Your task to perform on an android device: When is my next appointment? Image 0: 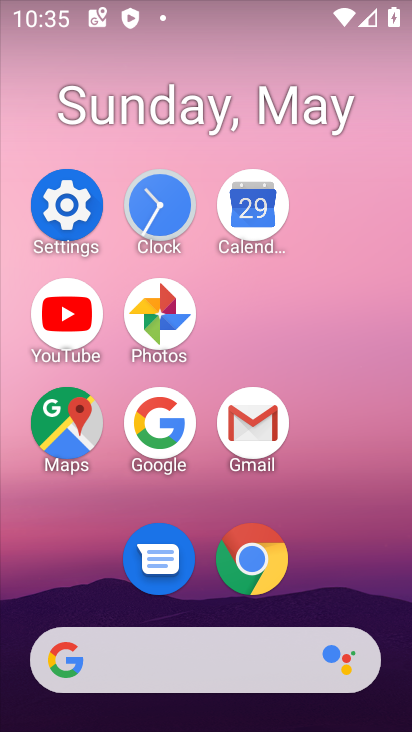
Step 0: click (258, 200)
Your task to perform on an android device: When is my next appointment? Image 1: 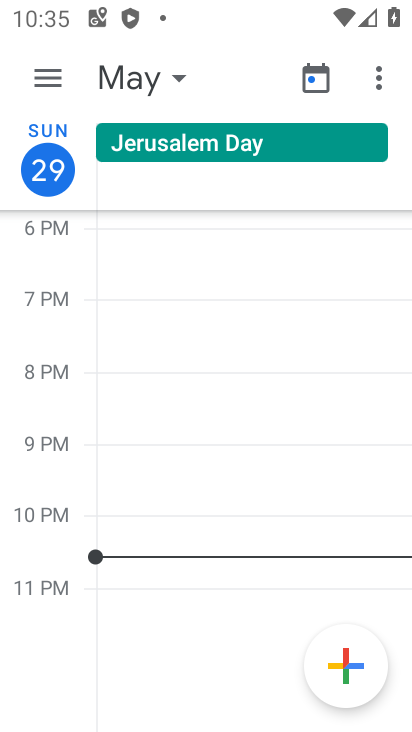
Step 1: drag from (391, 173) to (37, 41)
Your task to perform on an android device: When is my next appointment? Image 2: 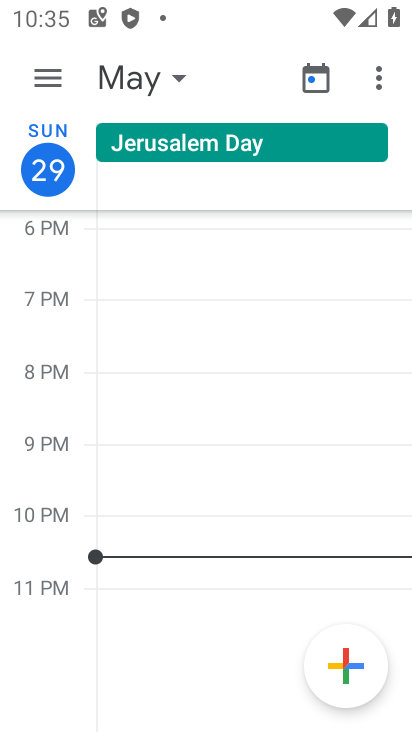
Step 2: drag from (147, 483) to (94, 233)
Your task to perform on an android device: When is my next appointment? Image 3: 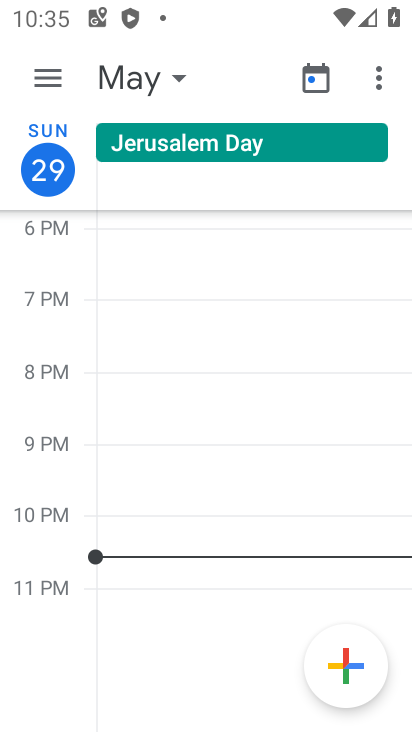
Step 3: click (44, 80)
Your task to perform on an android device: When is my next appointment? Image 4: 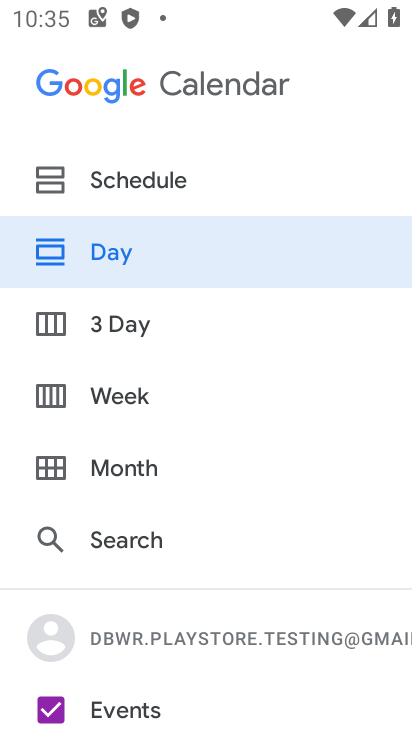
Step 4: click (103, 336)
Your task to perform on an android device: When is my next appointment? Image 5: 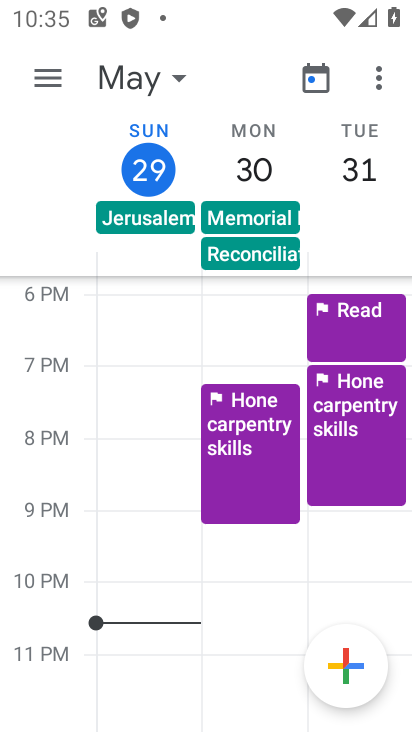
Step 5: drag from (390, 161) to (15, 117)
Your task to perform on an android device: When is my next appointment? Image 6: 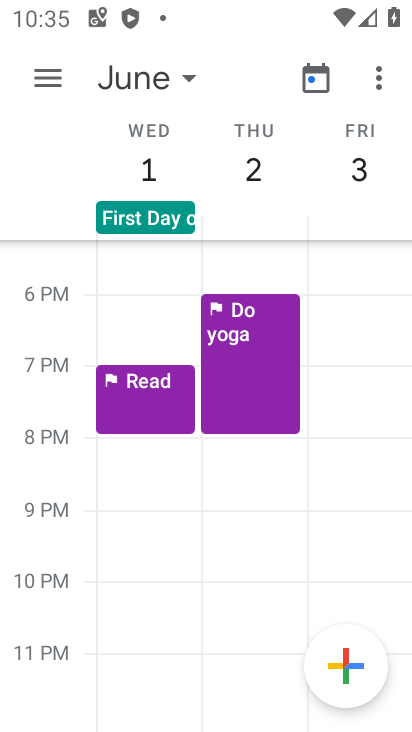
Step 6: click (169, 163)
Your task to perform on an android device: When is my next appointment? Image 7: 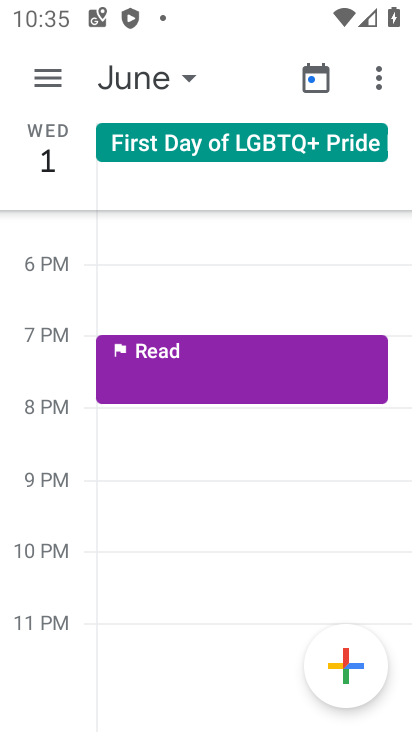
Step 7: task complete